Your task to perform on an android device: snooze an email in the gmail app Image 0: 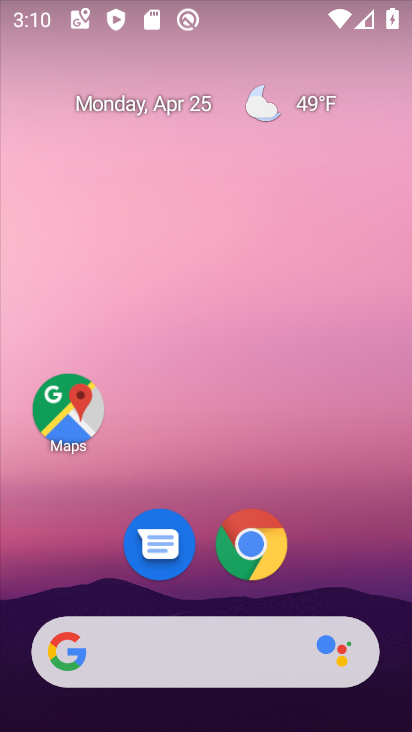
Step 0: drag from (216, 442) to (238, 30)
Your task to perform on an android device: snooze an email in the gmail app Image 1: 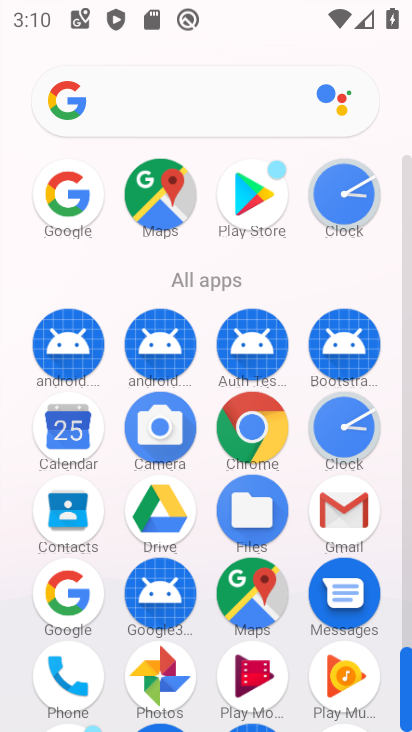
Step 1: click (344, 507)
Your task to perform on an android device: snooze an email in the gmail app Image 2: 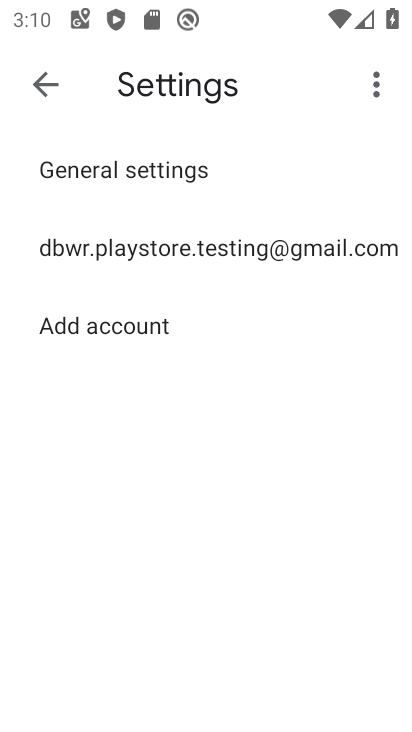
Step 2: press back button
Your task to perform on an android device: snooze an email in the gmail app Image 3: 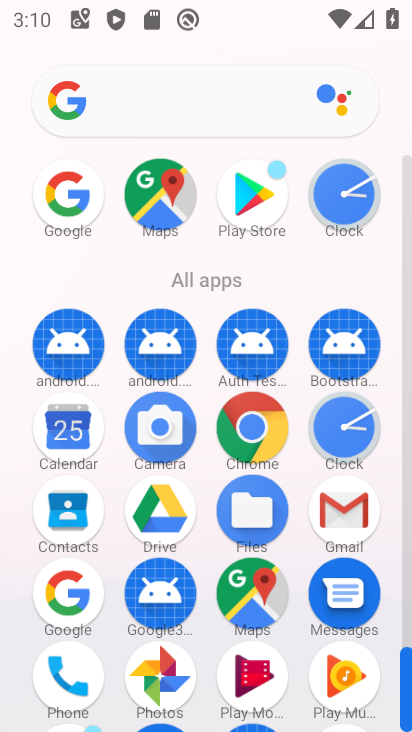
Step 3: click (342, 510)
Your task to perform on an android device: snooze an email in the gmail app Image 4: 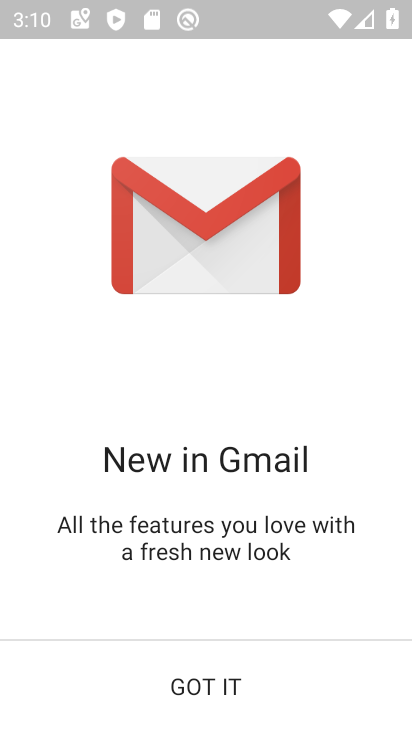
Step 4: click (191, 681)
Your task to perform on an android device: snooze an email in the gmail app Image 5: 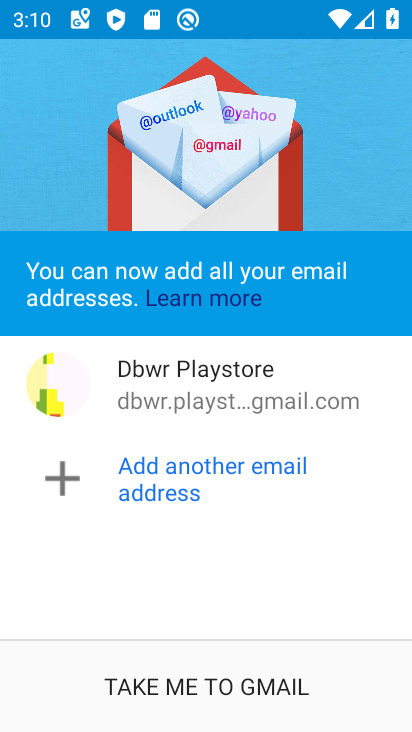
Step 5: click (185, 689)
Your task to perform on an android device: snooze an email in the gmail app Image 6: 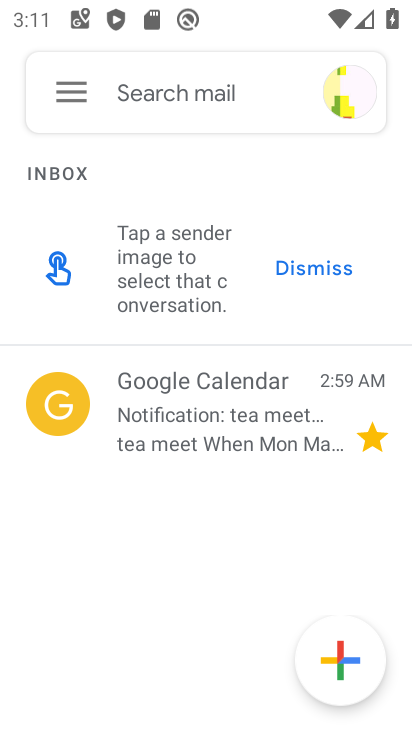
Step 6: click (209, 399)
Your task to perform on an android device: snooze an email in the gmail app Image 7: 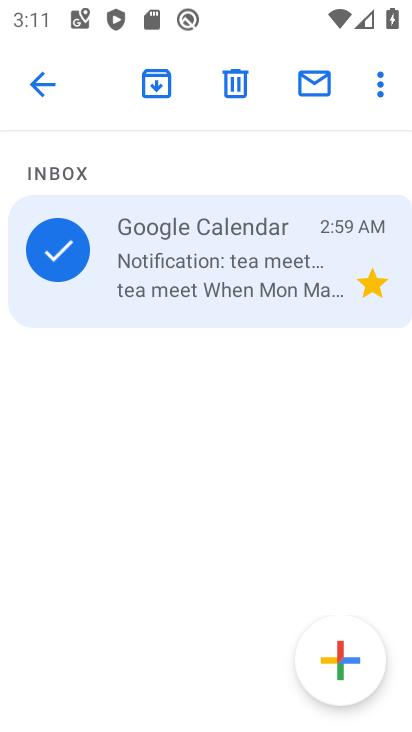
Step 7: click (381, 80)
Your task to perform on an android device: snooze an email in the gmail app Image 8: 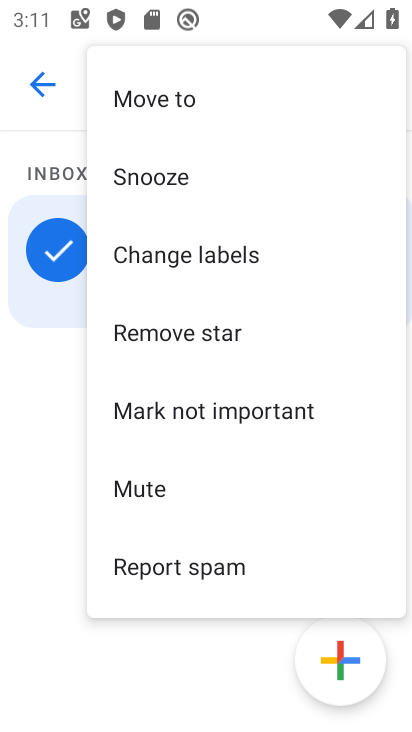
Step 8: click (163, 171)
Your task to perform on an android device: snooze an email in the gmail app Image 9: 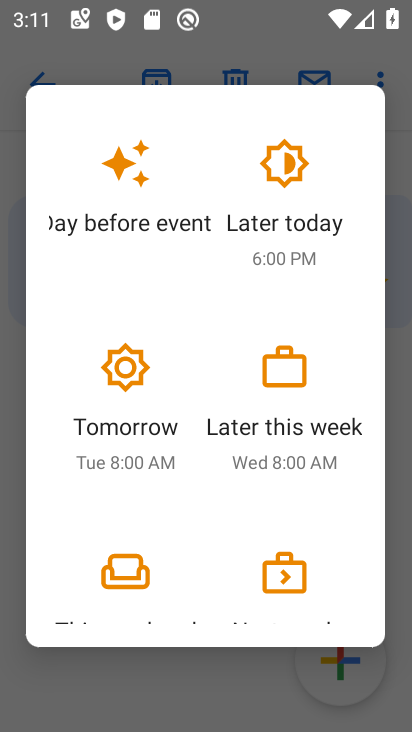
Step 9: click (127, 378)
Your task to perform on an android device: snooze an email in the gmail app Image 10: 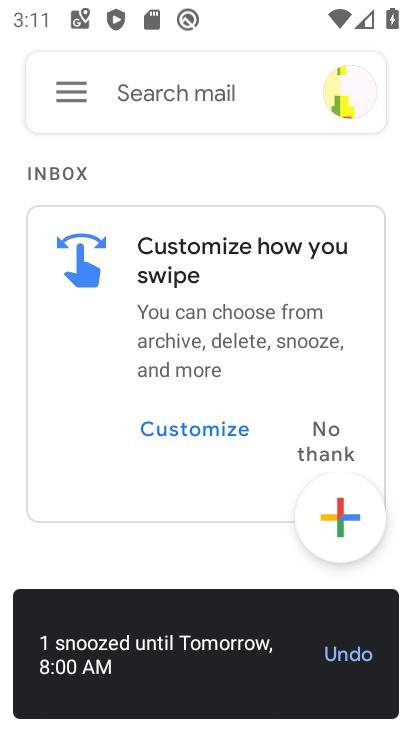
Step 10: task complete